Your task to perform on an android device: Show me popular videos on Youtube Image 0: 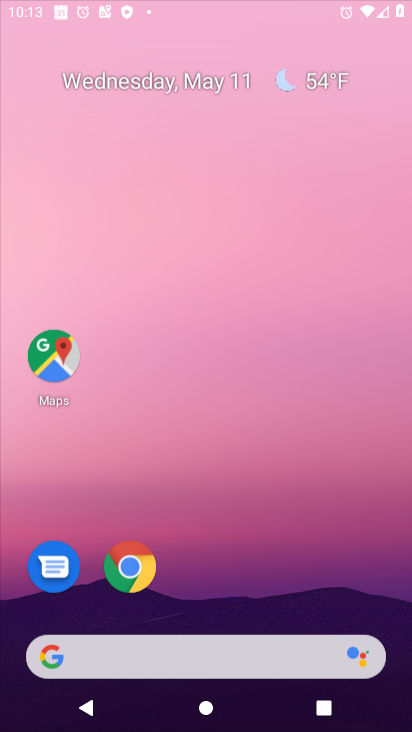
Step 0: drag from (185, 461) to (227, 126)
Your task to perform on an android device: Show me popular videos on Youtube Image 1: 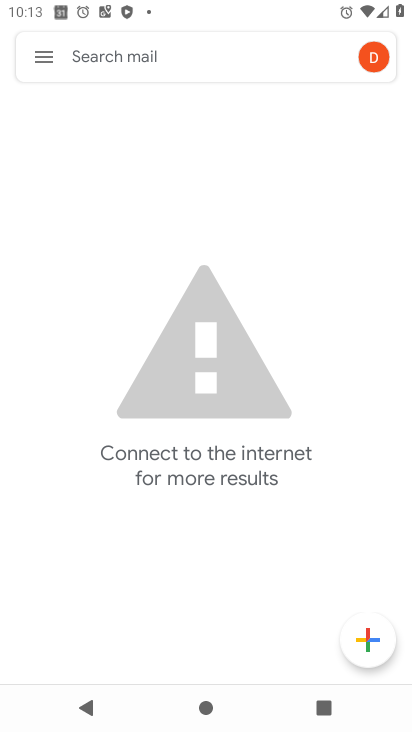
Step 1: press home button
Your task to perform on an android device: Show me popular videos on Youtube Image 2: 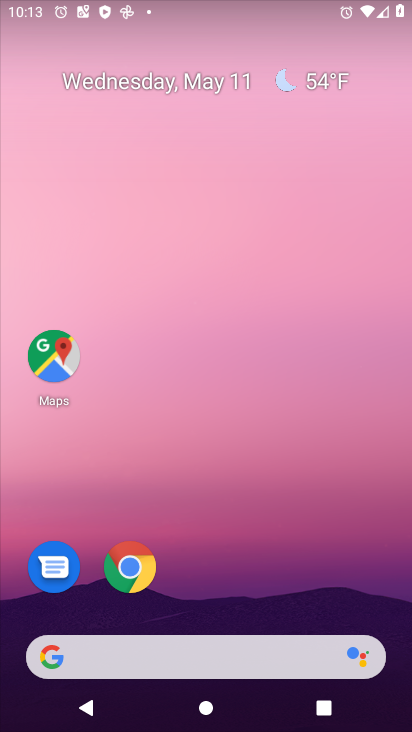
Step 2: drag from (183, 602) to (201, 0)
Your task to perform on an android device: Show me popular videos on Youtube Image 3: 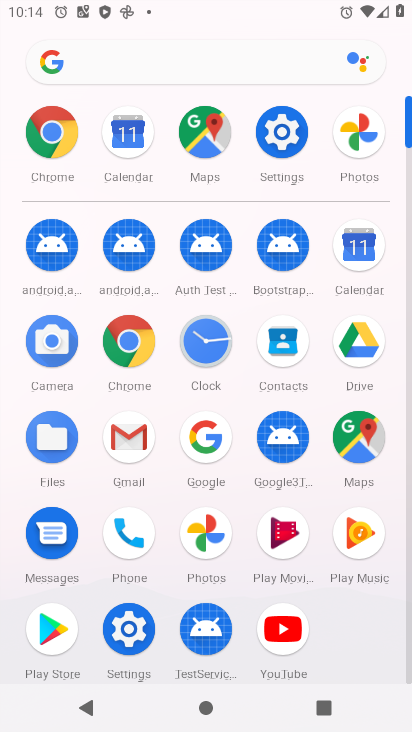
Step 3: click (281, 634)
Your task to perform on an android device: Show me popular videos on Youtube Image 4: 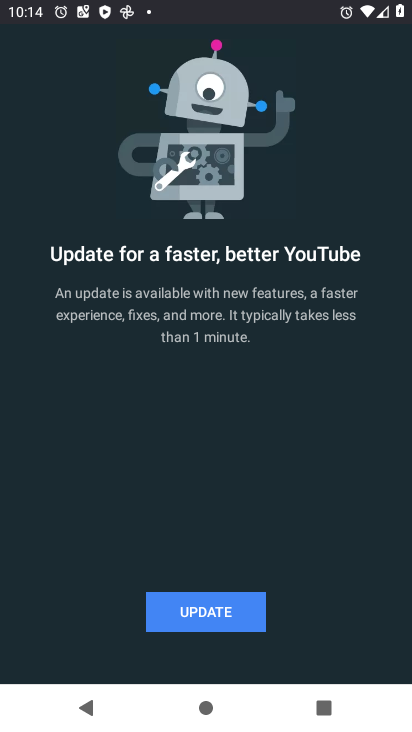
Step 4: click (205, 620)
Your task to perform on an android device: Show me popular videos on Youtube Image 5: 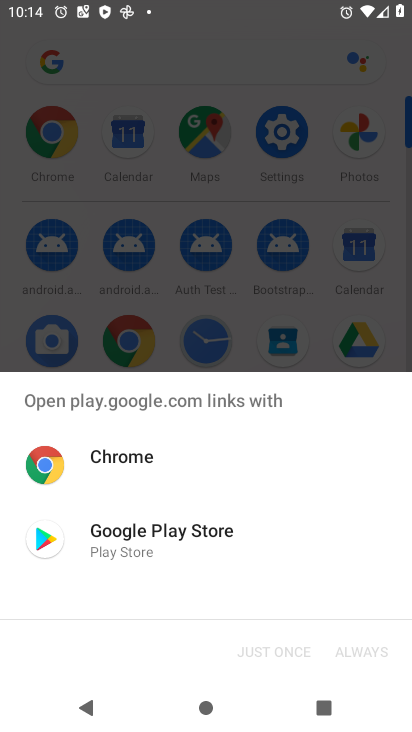
Step 5: click (127, 536)
Your task to perform on an android device: Show me popular videos on Youtube Image 6: 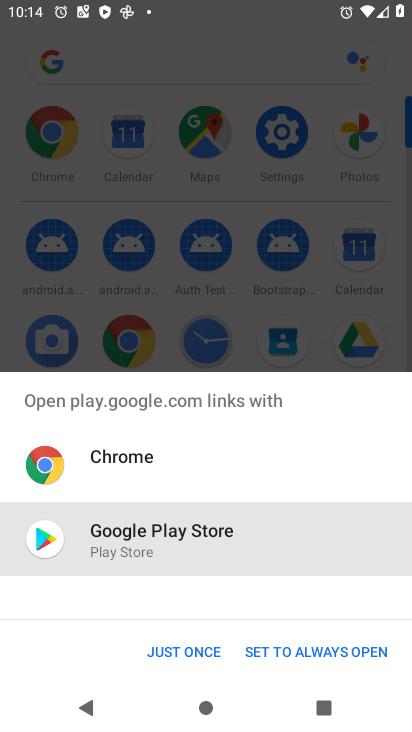
Step 6: click (196, 651)
Your task to perform on an android device: Show me popular videos on Youtube Image 7: 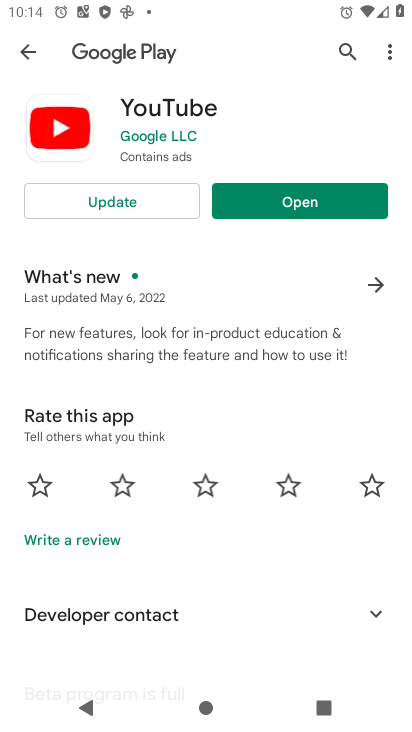
Step 7: click (141, 200)
Your task to perform on an android device: Show me popular videos on Youtube Image 8: 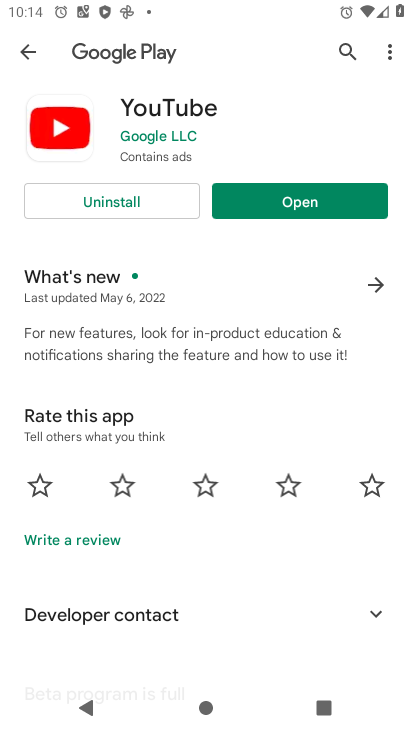
Step 8: click (261, 200)
Your task to perform on an android device: Show me popular videos on Youtube Image 9: 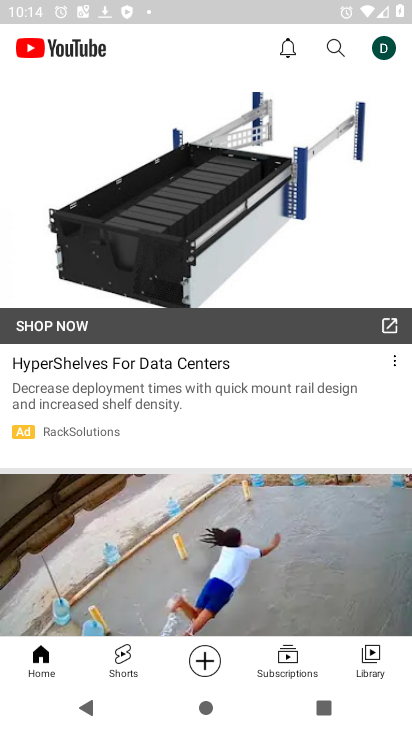
Step 9: click (383, 665)
Your task to perform on an android device: Show me popular videos on Youtube Image 10: 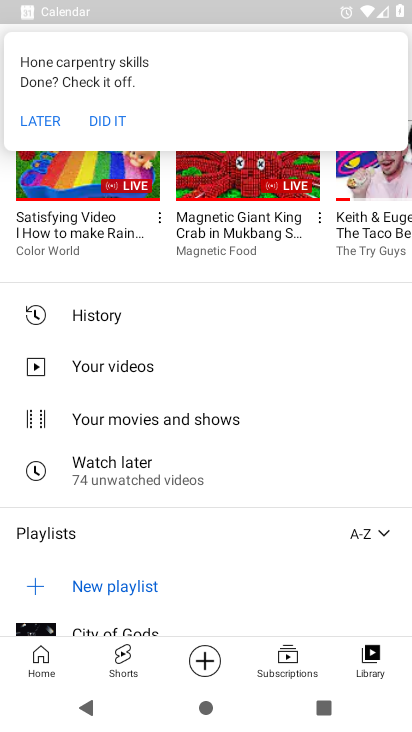
Step 10: click (75, 154)
Your task to perform on an android device: Show me popular videos on Youtube Image 11: 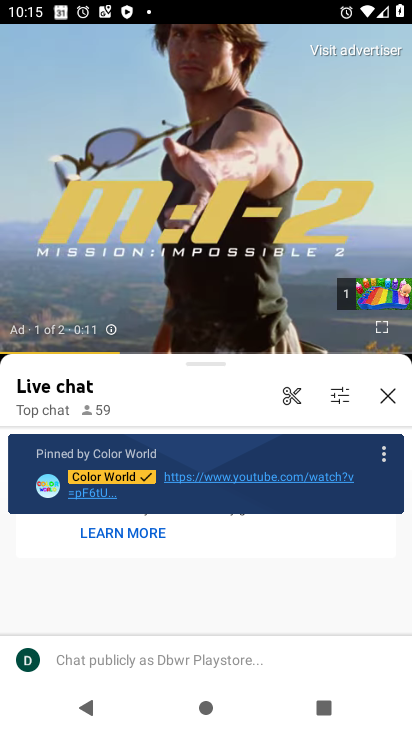
Step 11: task complete